Your task to perform on an android device: Is it going to rain this weekend? Image 0: 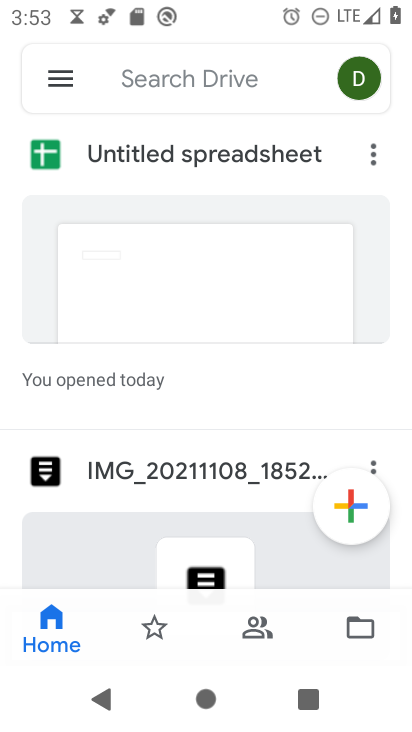
Step 0: press home button
Your task to perform on an android device: Is it going to rain this weekend? Image 1: 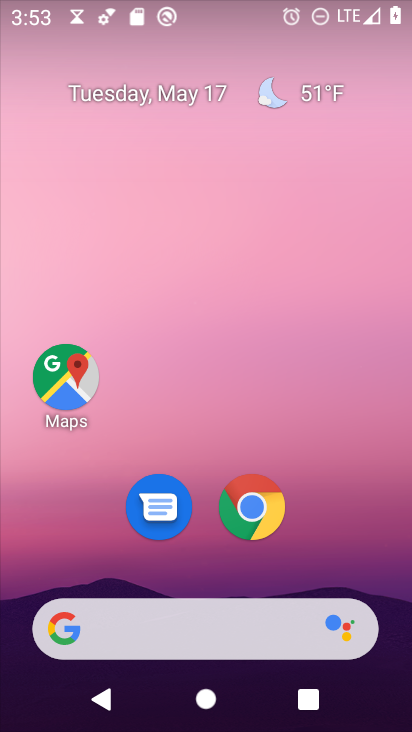
Step 1: click (200, 621)
Your task to perform on an android device: Is it going to rain this weekend? Image 2: 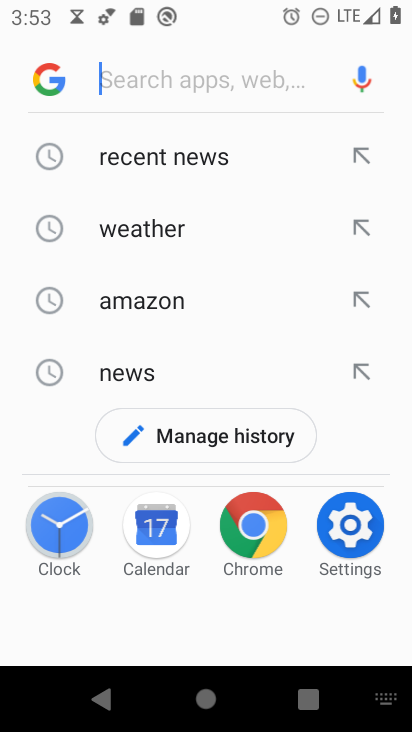
Step 2: type "is it going to rain this weekend"
Your task to perform on an android device: Is it going to rain this weekend? Image 3: 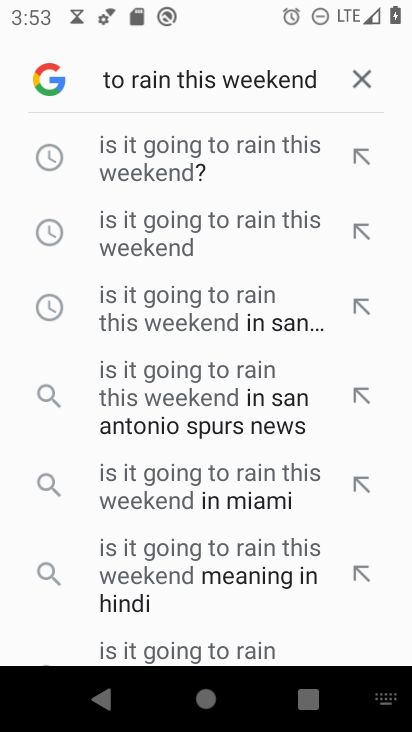
Step 3: click (212, 162)
Your task to perform on an android device: Is it going to rain this weekend? Image 4: 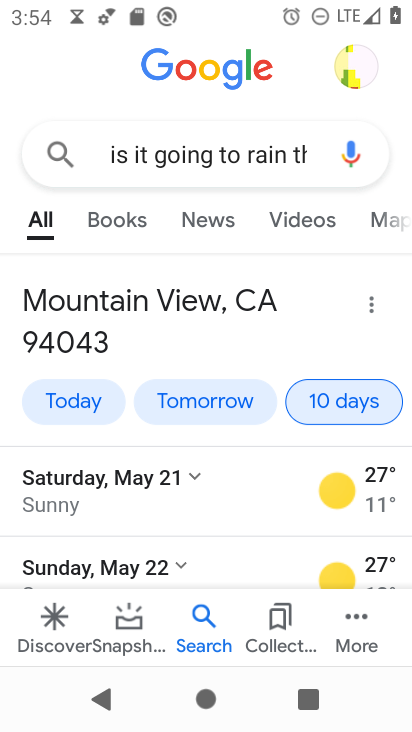
Step 4: task complete